Your task to perform on an android device: open app "Truecaller" (install if not already installed) and enter user name: "coauthor@gmail.com" and password: "quadrangle" Image 0: 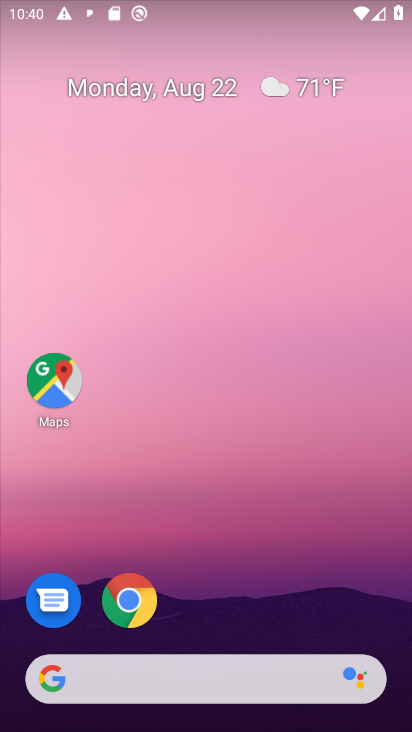
Step 0: drag from (245, 582) to (219, 145)
Your task to perform on an android device: open app "Truecaller" (install if not already installed) and enter user name: "coauthor@gmail.com" and password: "quadrangle" Image 1: 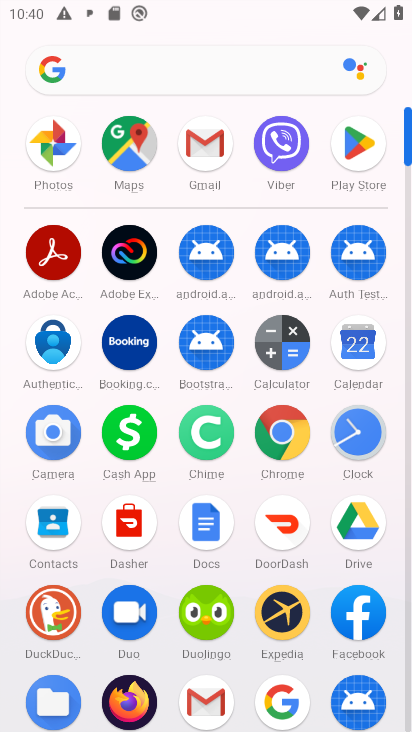
Step 1: click (359, 132)
Your task to perform on an android device: open app "Truecaller" (install if not already installed) and enter user name: "coauthor@gmail.com" and password: "quadrangle" Image 2: 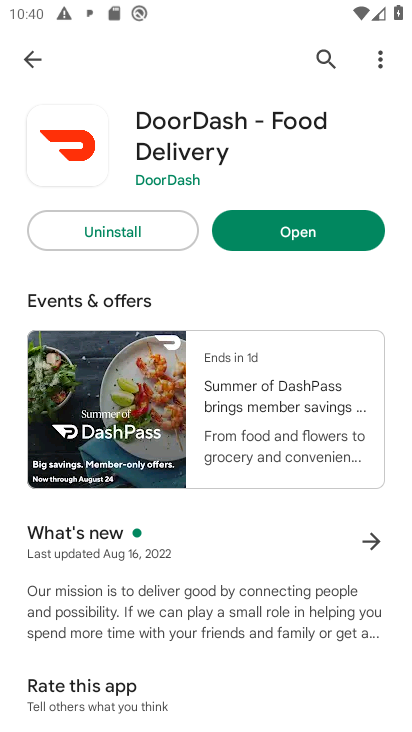
Step 2: click (325, 48)
Your task to perform on an android device: open app "Truecaller" (install if not already installed) and enter user name: "coauthor@gmail.com" and password: "quadrangle" Image 3: 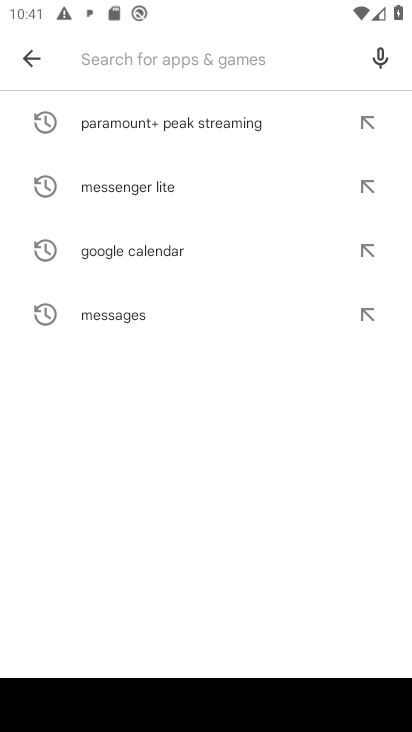
Step 3: type "Truecaller"
Your task to perform on an android device: open app "Truecaller" (install if not already installed) and enter user name: "coauthor@gmail.com" and password: "quadrangle" Image 4: 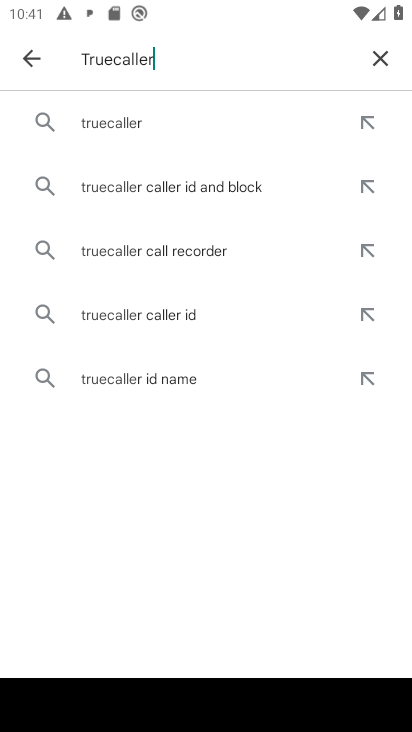
Step 4: type ""
Your task to perform on an android device: open app "Truecaller" (install if not already installed) and enter user name: "coauthor@gmail.com" and password: "quadrangle" Image 5: 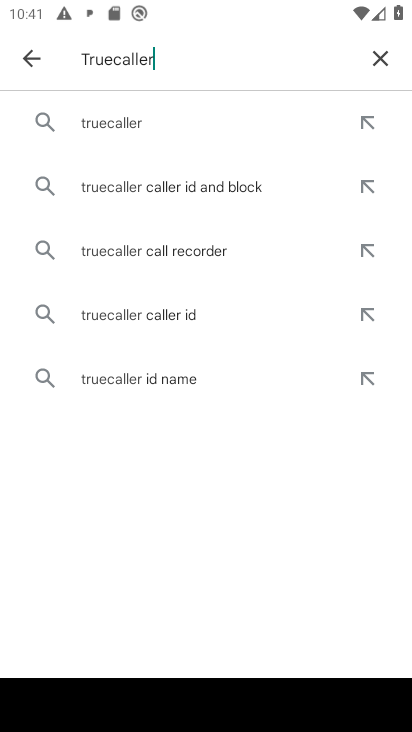
Step 5: click (155, 121)
Your task to perform on an android device: open app "Truecaller" (install if not already installed) and enter user name: "coauthor@gmail.com" and password: "quadrangle" Image 6: 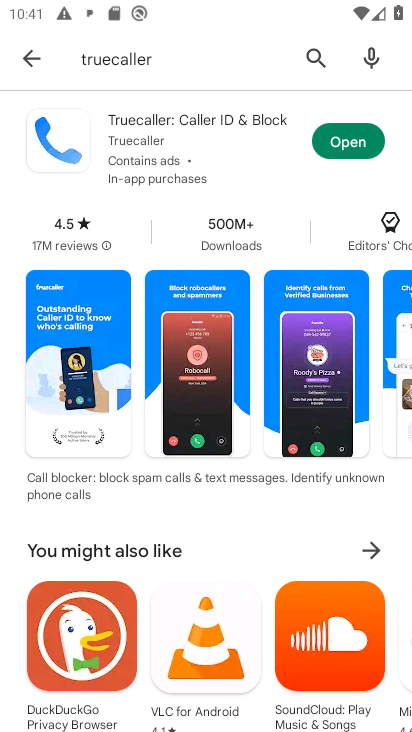
Step 6: click (341, 140)
Your task to perform on an android device: open app "Truecaller" (install if not already installed) and enter user name: "coauthor@gmail.com" and password: "quadrangle" Image 7: 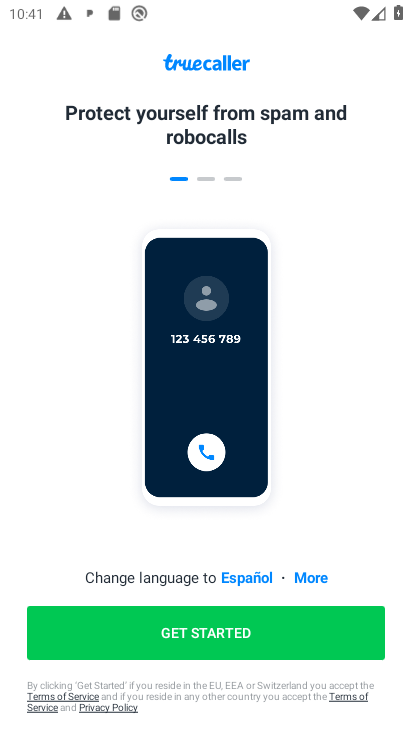
Step 7: task complete